Your task to perform on an android device: When is my next appointment? Image 0: 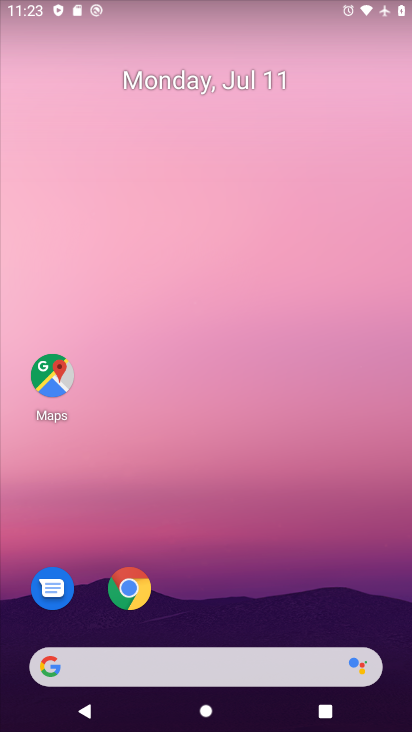
Step 0: drag from (216, 668) to (225, 68)
Your task to perform on an android device: When is my next appointment? Image 1: 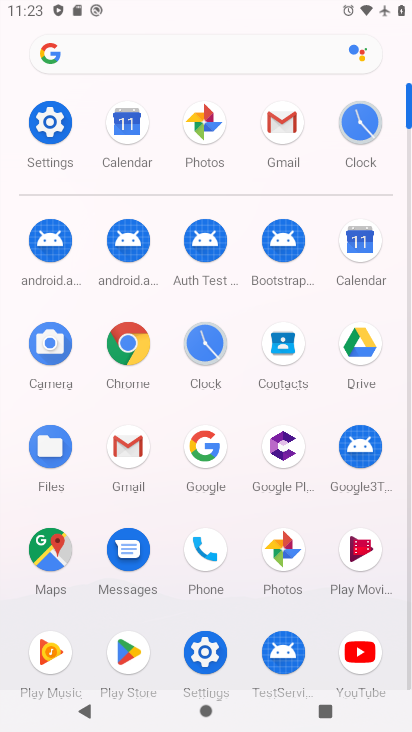
Step 1: click (351, 238)
Your task to perform on an android device: When is my next appointment? Image 2: 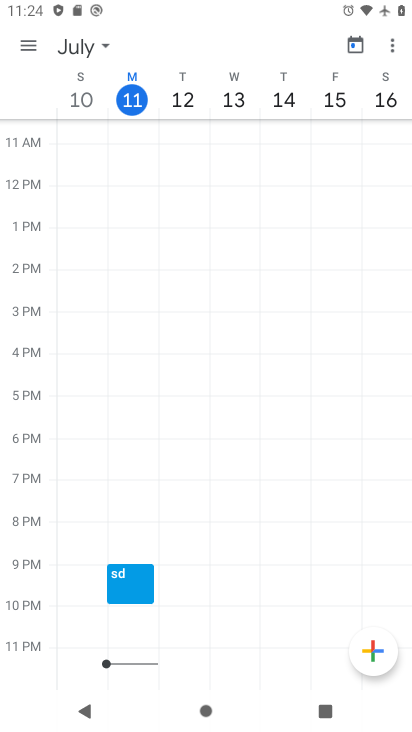
Step 2: click (24, 51)
Your task to perform on an android device: When is my next appointment? Image 3: 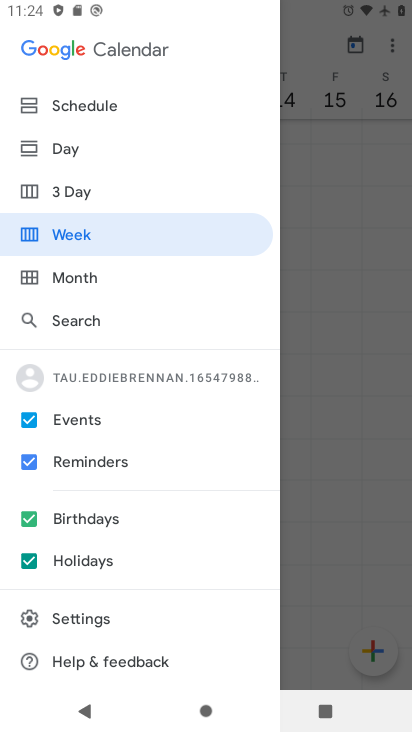
Step 3: click (94, 105)
Your task to perform on an android device: When is my next appointment? Image 4: 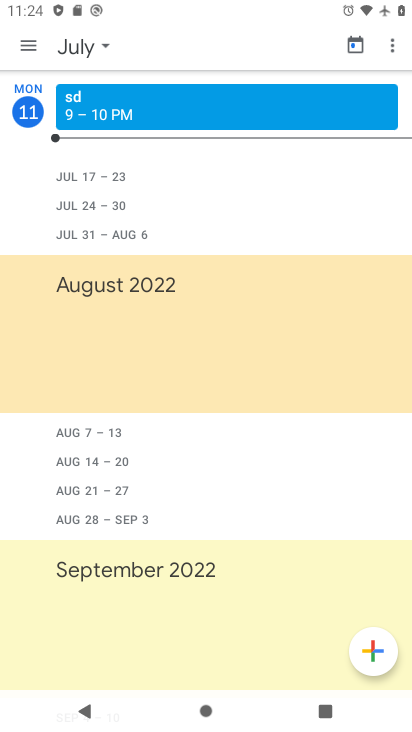
Step 4: task complete